Your task to perform on an android device: Is it going to rain this weekend? Image 0: 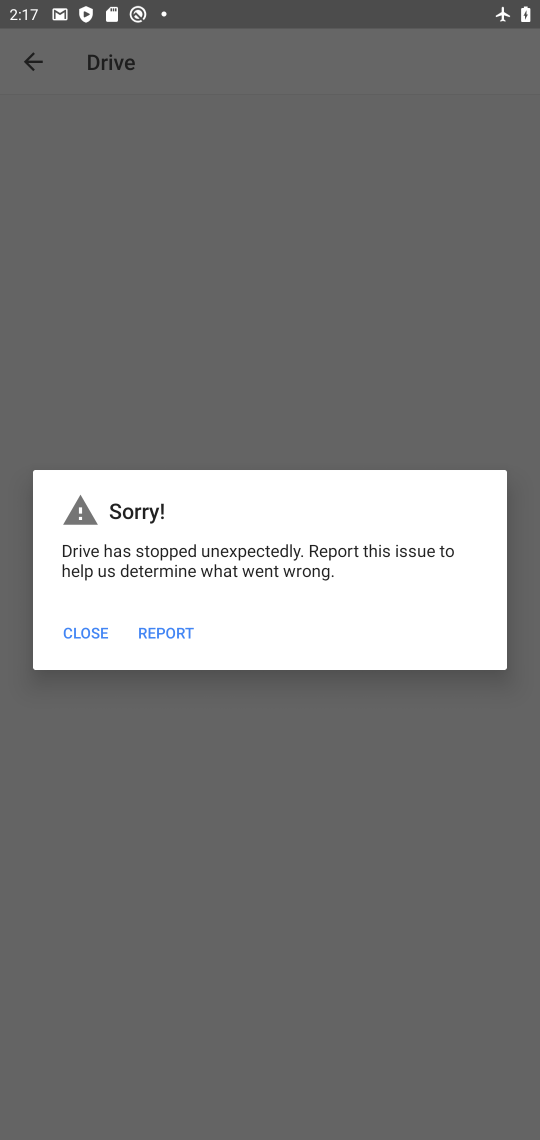
Step 0: press home button
Your task to perform on an android device: Is it going to rain this weekend? Image 1: 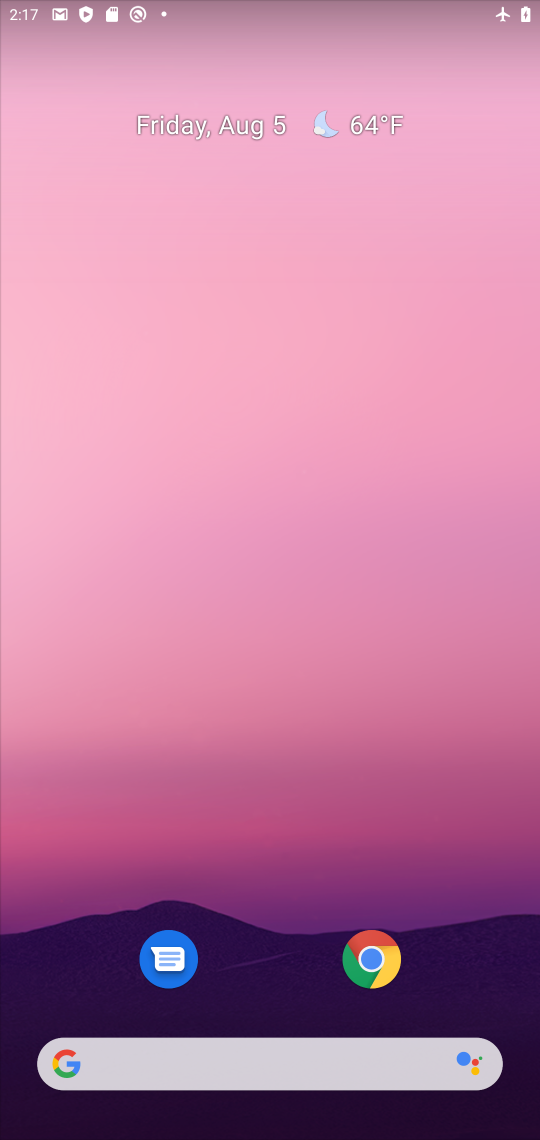
Step 1: click (236, 1084)
Your task to perform on an android device: Is it going to rain this weekend? Image 2: 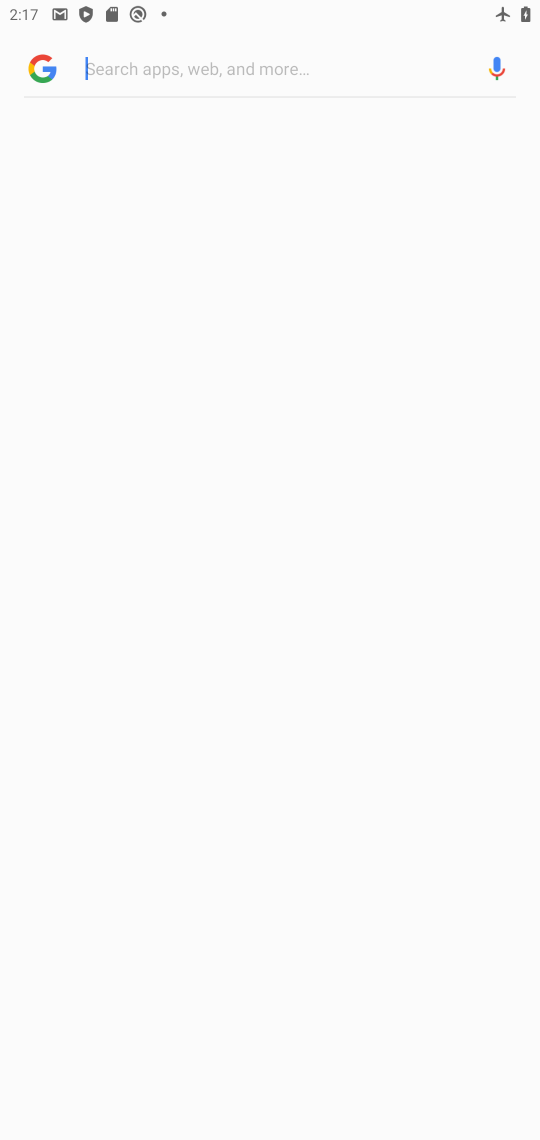
Step 2: click (256, 1064)
Your task to perform on an android device: Is it going to rain this weekend? Image 3: 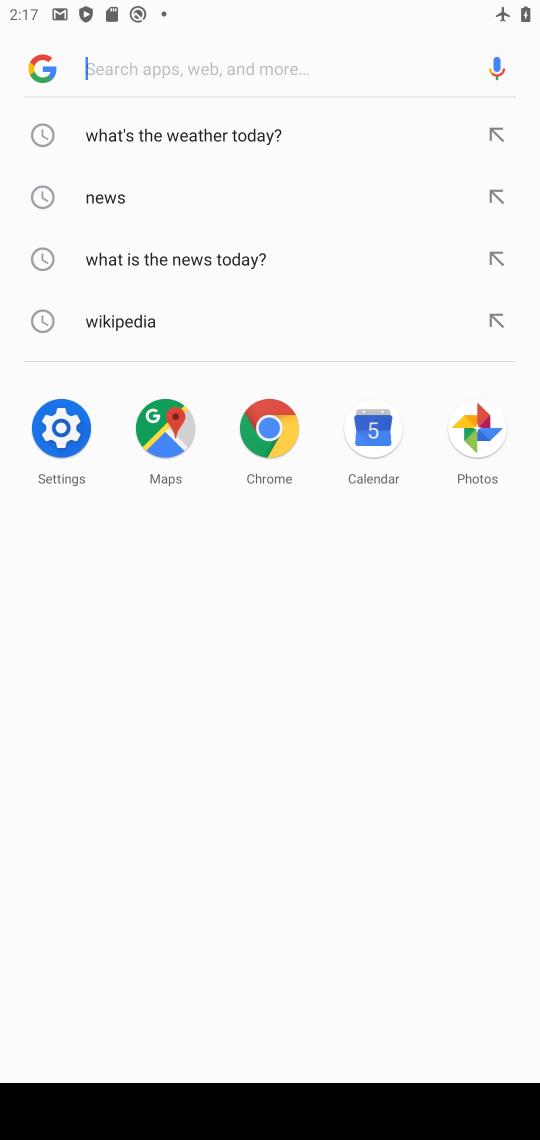
Step 3: type "Is it going to rain this weekend?"
Your task to perform on an android device: Is it going to rain this weekend? Image 4: 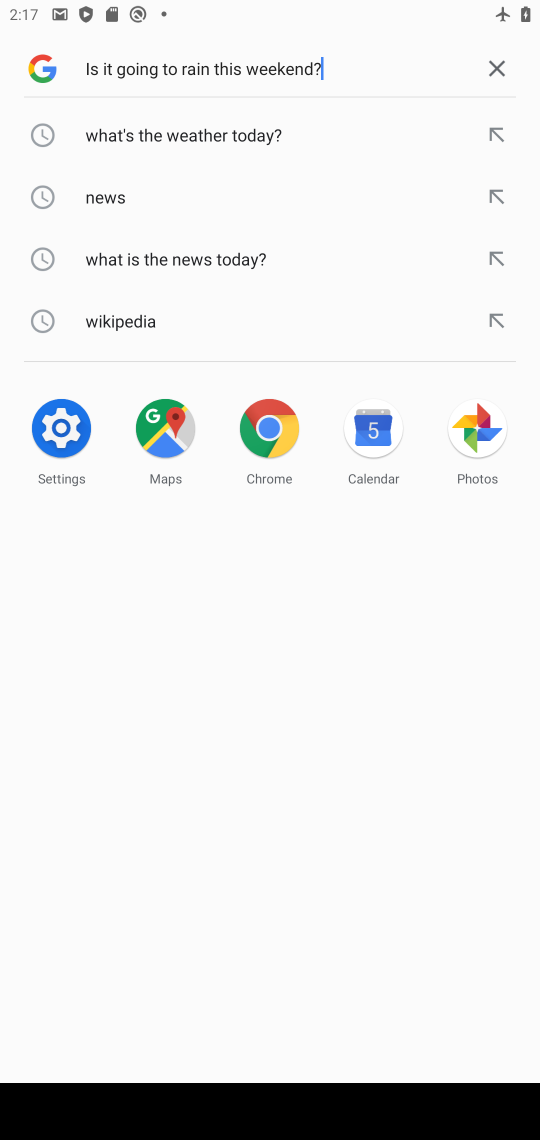
Step 4: type ""
Your task to perform on an android device: Is it going to rain this weekend? Image 5: 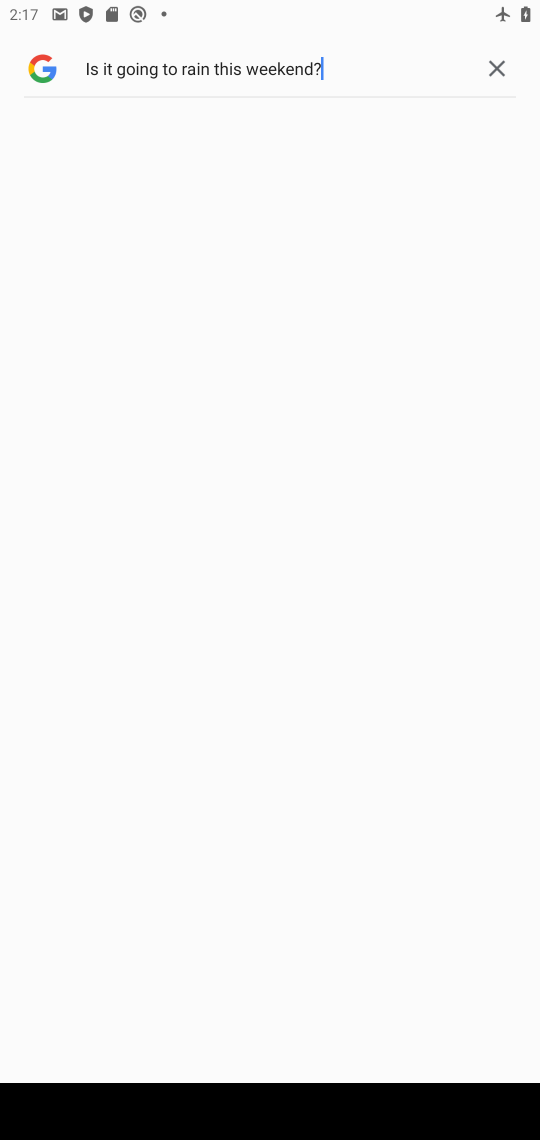
Step 5: press enter
Your task to perform on an android device: Is it going to rain this weekend? Image 6: 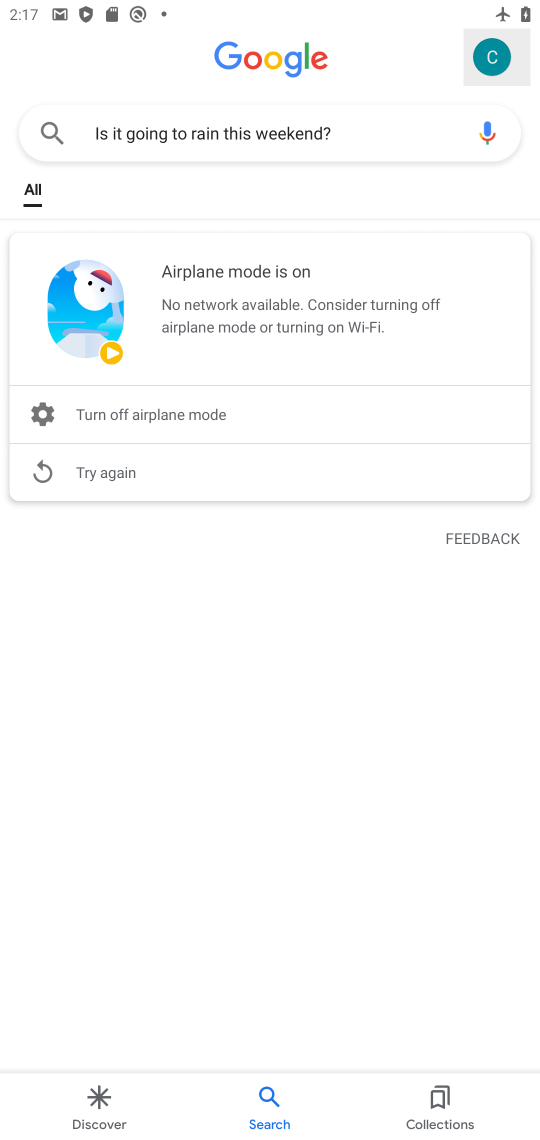
Step 6: task complete